Your task to perform on an android device: move an email to a new category in the gmail app Image 0: 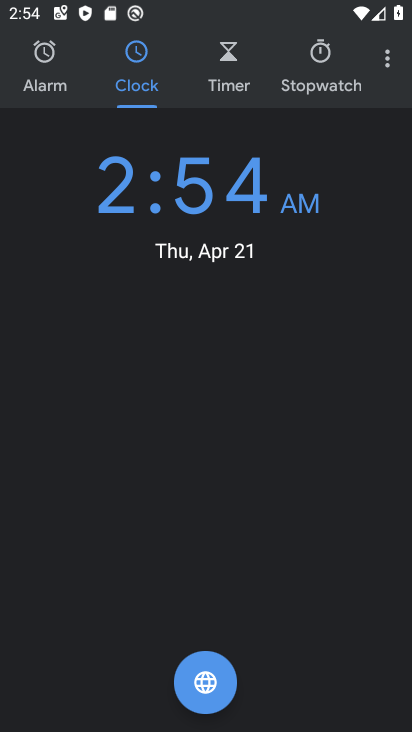
Step 0: press home button
Your task to perform on an android device: move an email to a new category in the gmail app Image 1: 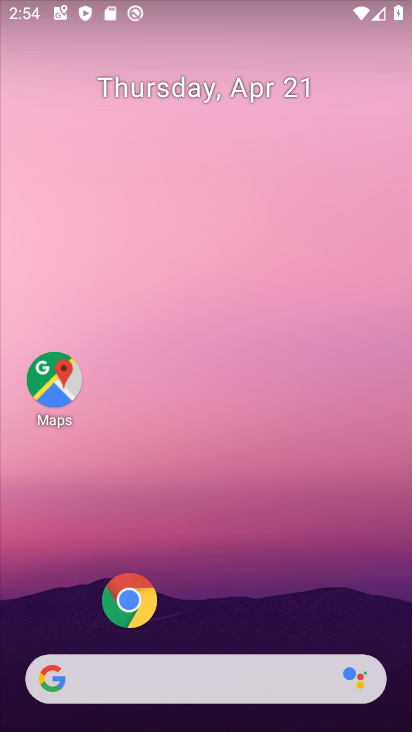
Step 1: drag from (25, 641) to (205, 201)
Your task to perform on an android device: move an email to a new category in the gmail app Image 2: 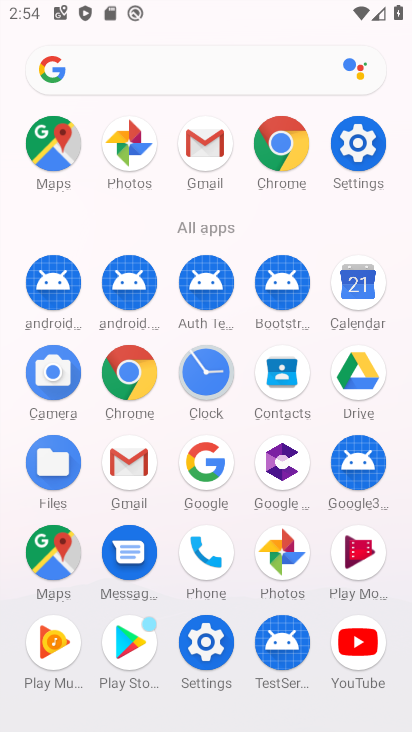
Step 2: click (214, 156)
Your task to perform on an android device: move an email to a new category in the gmail app Image 3: 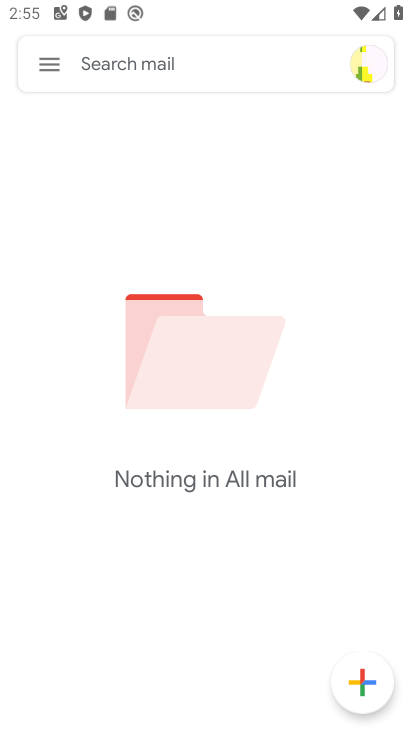
Step 3: task complete